Your task to perform on an android device: toggle notifications settings in the gmail app Image 0: 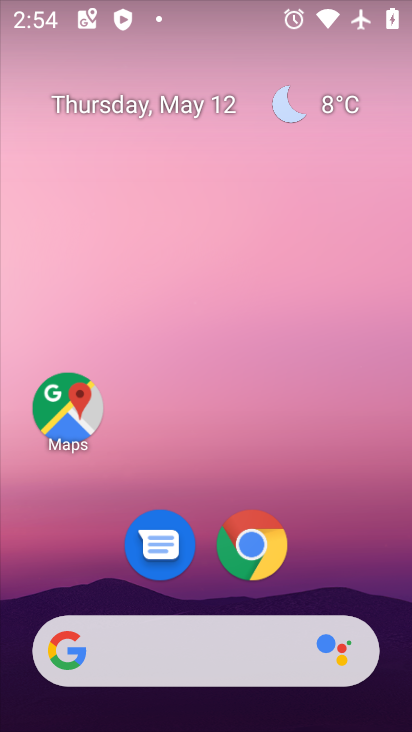
Step 0: drag from (343, 429) to (308, 144)
Your task to perform on an android device: toggle notifications settings in the gmail app Image 1: 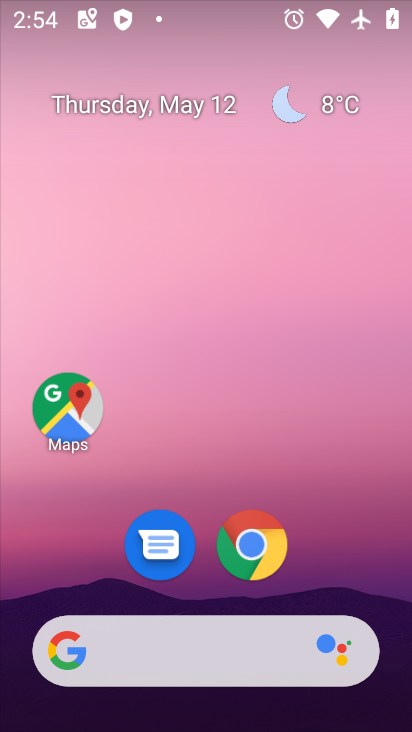
Step 1: drag from (395, 643) to (264, 50)
Your task to perform on an android device: toggle notifications settings in the gmail app Image 2: 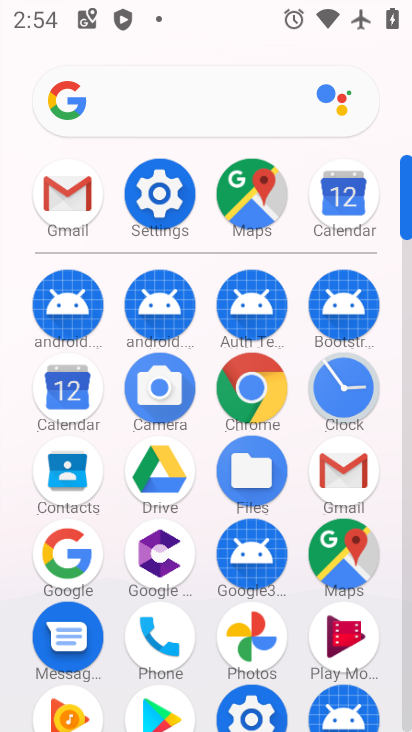
Step 2: click (345, 468)
Your task to perform on an android device: toggle notifications settings in the gmail app Image 3: 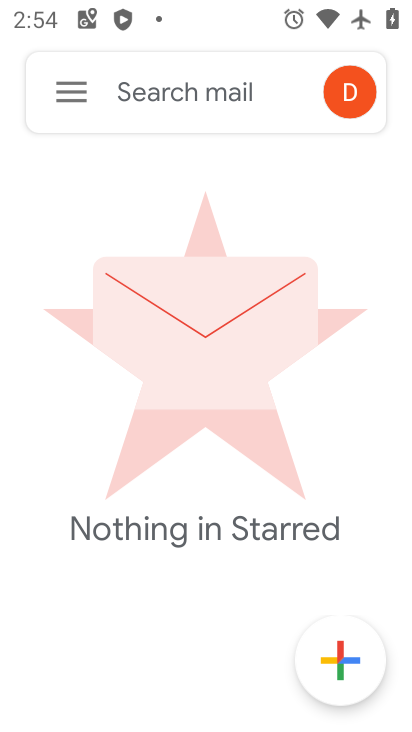
Step 3: click (70, 93)
Your task to perform on an android device: toggle notifications settings in the gmail app Image 4: 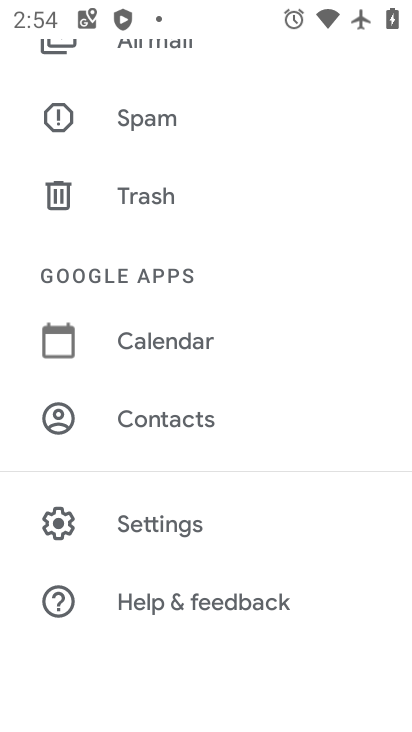
Step 4: click (153, 522)
Your task to perform on an android device: toggle notifications settings in the gmail app Image 5: 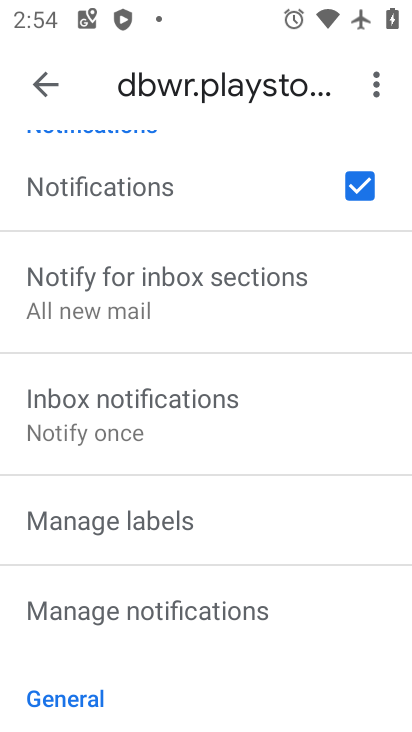
Step 5: click (146, 613)
Your task to perform on an android device: toggle notifications settings in the gmail app Image 6: 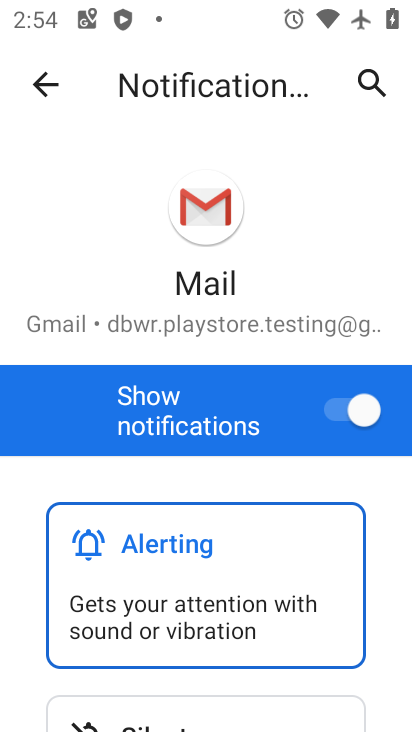
Step 6: click (330, 411)
Your task to perform on an android device: toggle notifications settings in the gmail app Image 7: 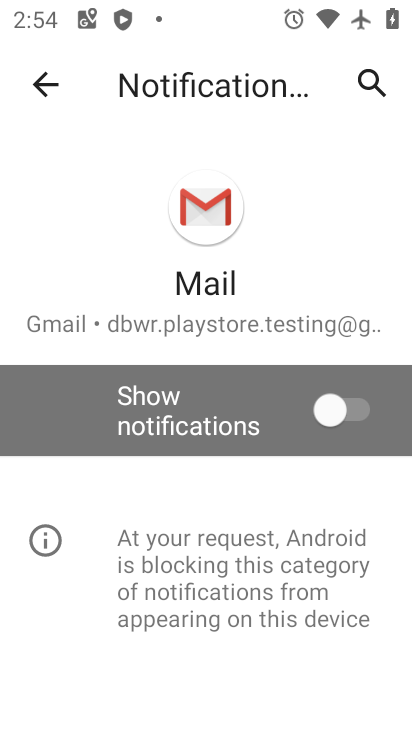
Step 7: task complete